Your task to perform on an android device: Open maps Image 0: 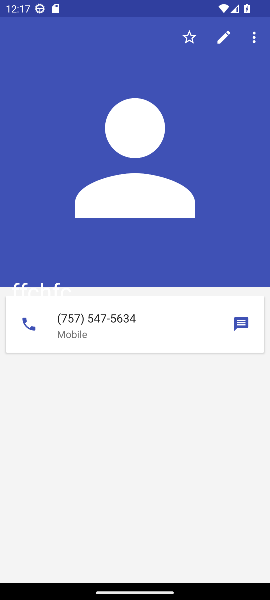
Step 0: press home button
Your task to perform on an android device: Open maps Image 1: 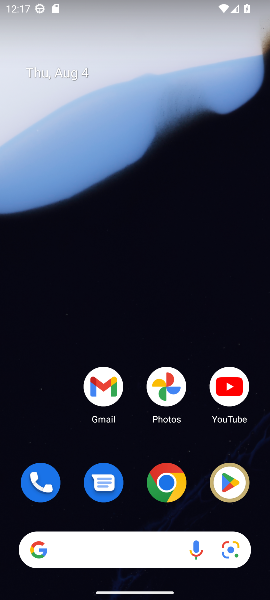
Step 1: drag from (139, 442) to (150, 137)
Your task to perform on an android device: Open maps Image 2: 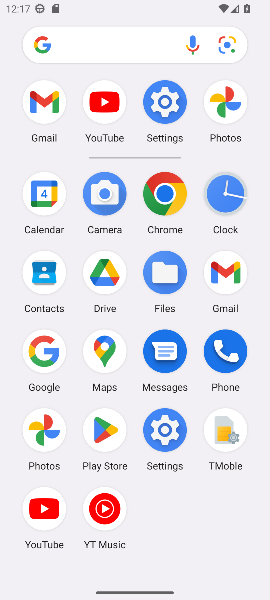
Step 2: click (107, 341)
Your task to perform on an android device: Open maps Image 3: 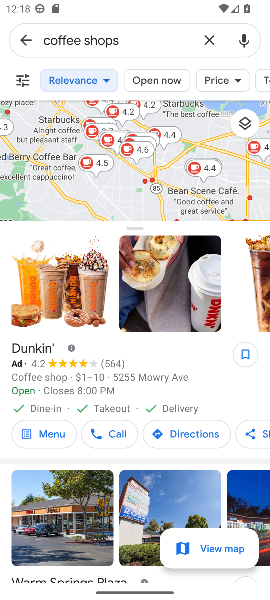
Step 3: task complete